Your task to perform on an android device: Add bose soundlink to the cart on target, then select checkout. Image 0: 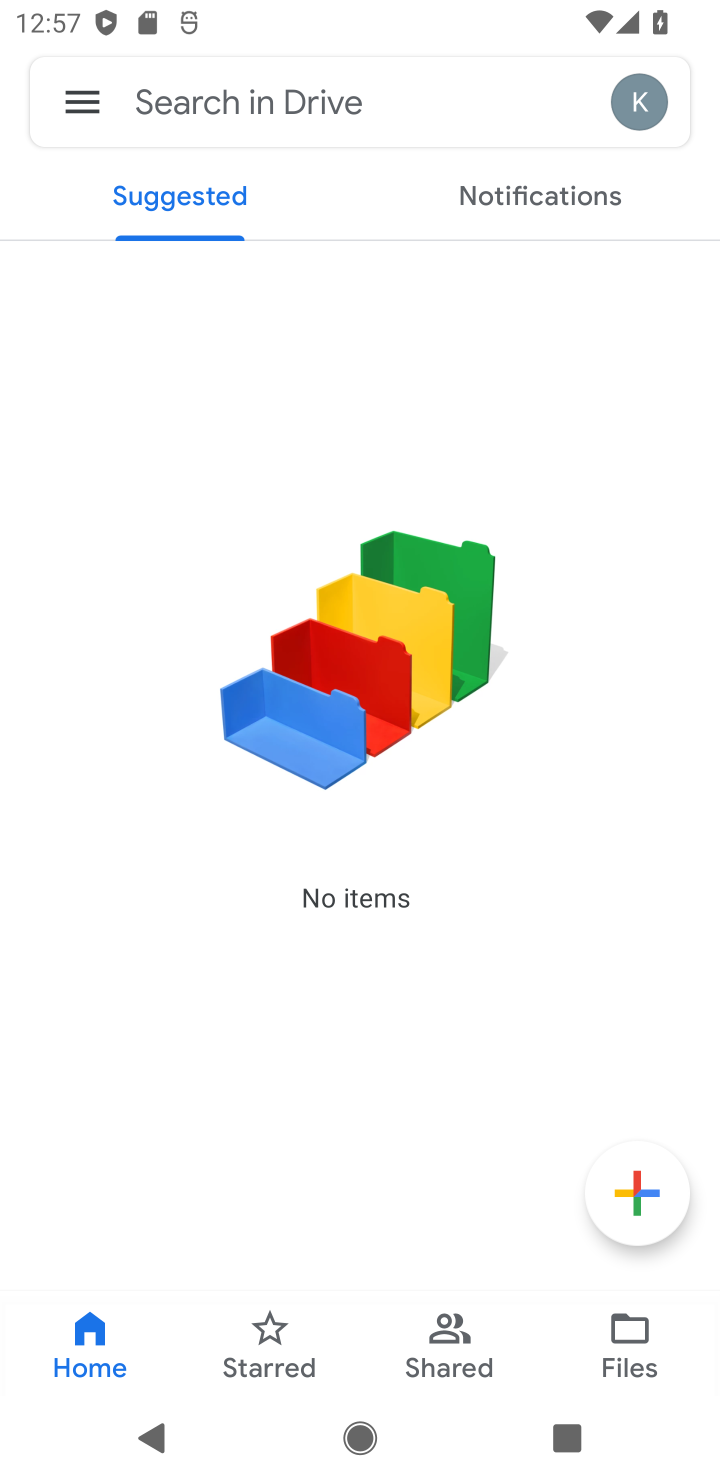
Step 0: press home button
Your task to perform on an android device: Add bose soundlink to the cart on target, then select checkout. Image 1: 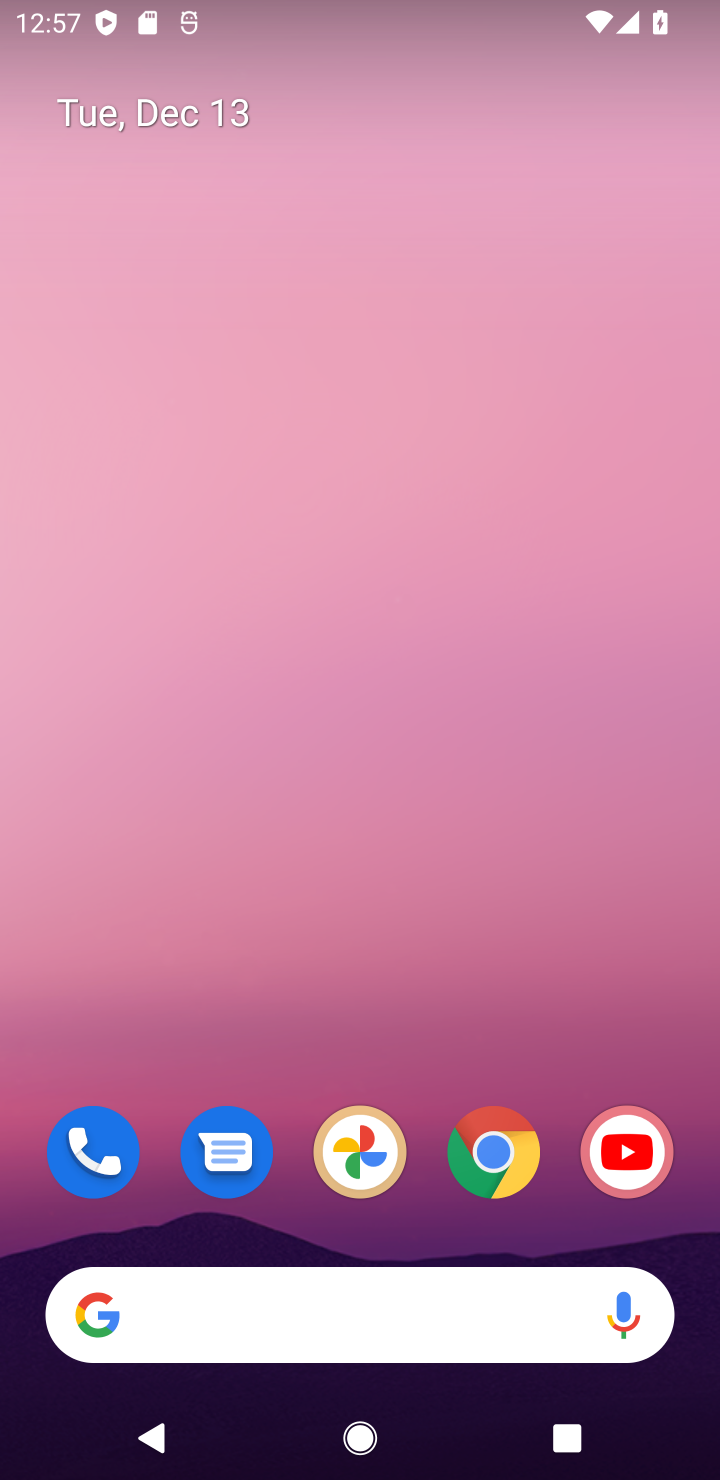
Step 1: drag from (384, 1069) to (472, 366)
Your task to perform on an android device: Add bose soundlink to the cart on target, then select checkout. Image 2: 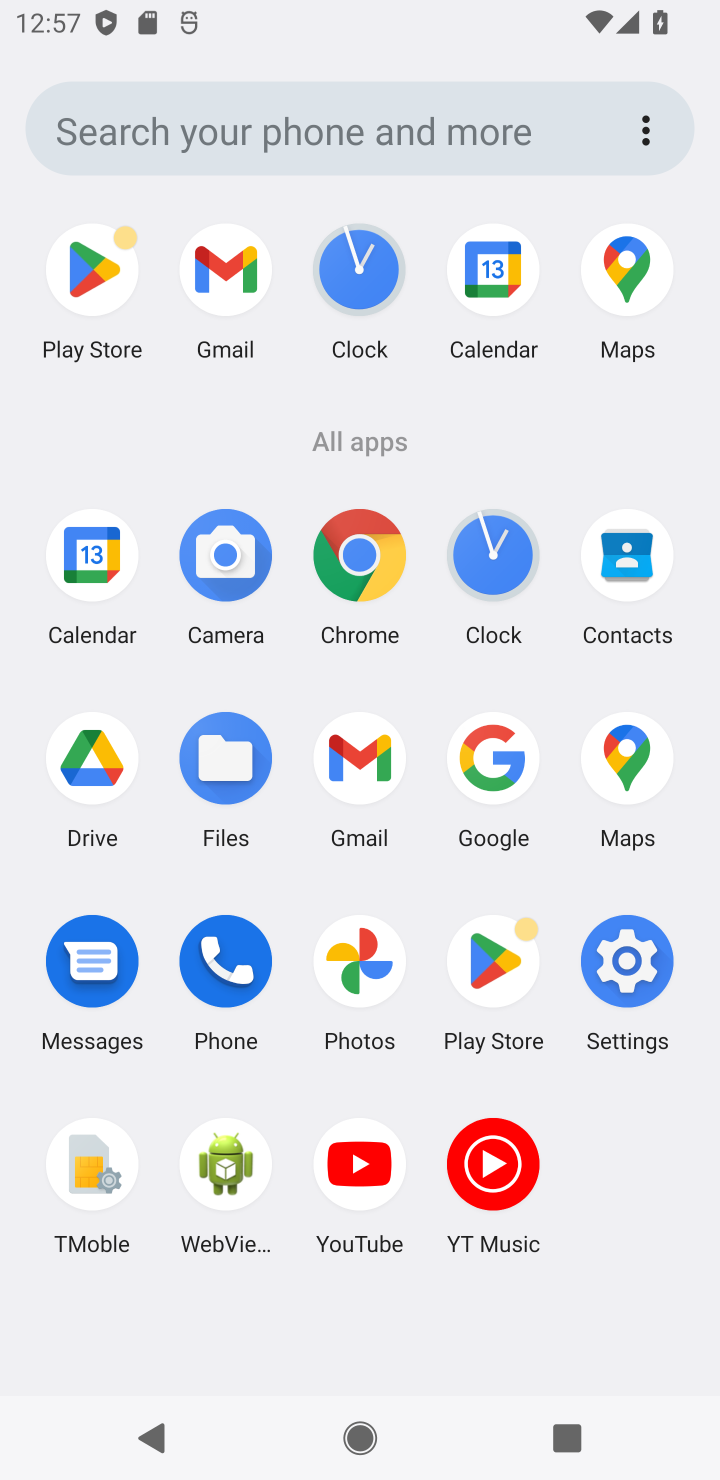
Step 2: click (482, 759)
Your task to perform on an android device: Add bose soundlink to the cart on target, then select checkout. Image 3: 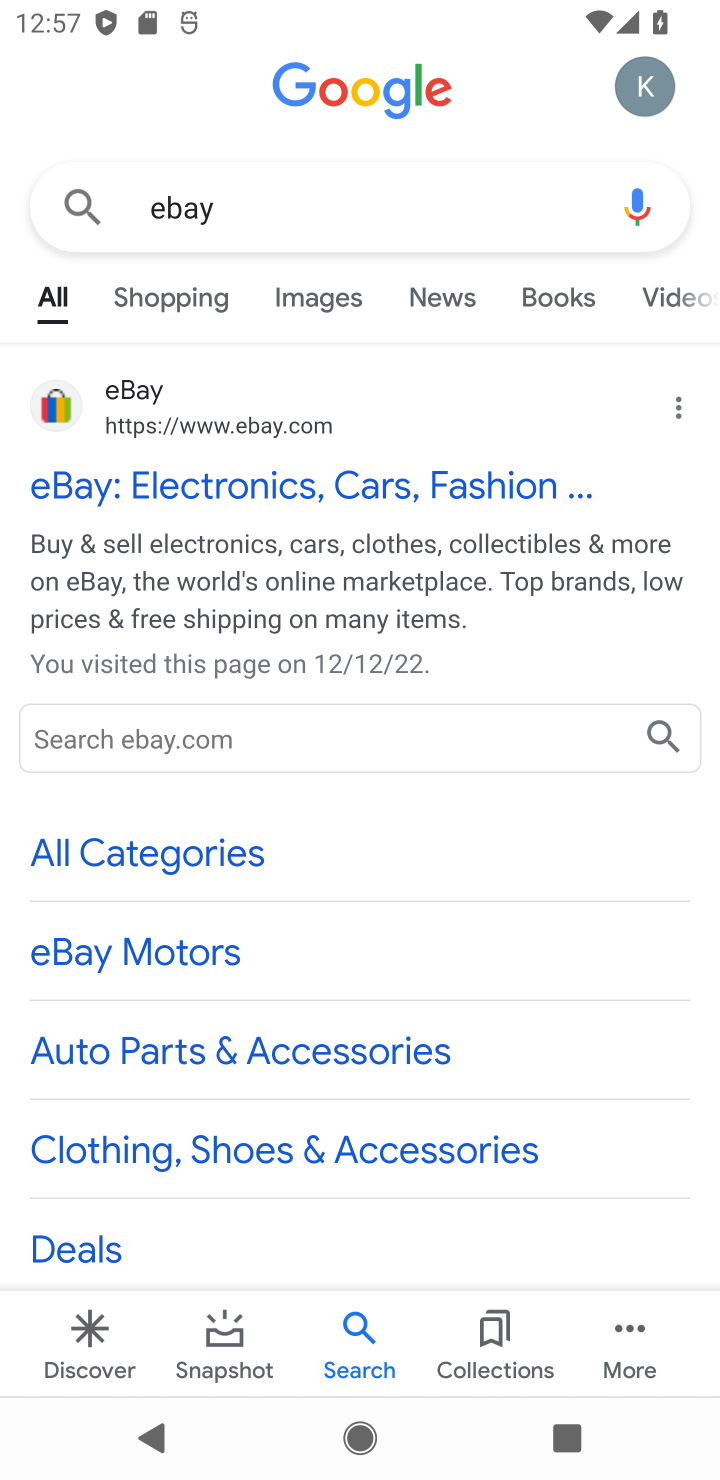
Step 3: click (178, 201)
Your task to perform on an android device: Add bose soundlink to the cart on target, then select checkout. Image 4: 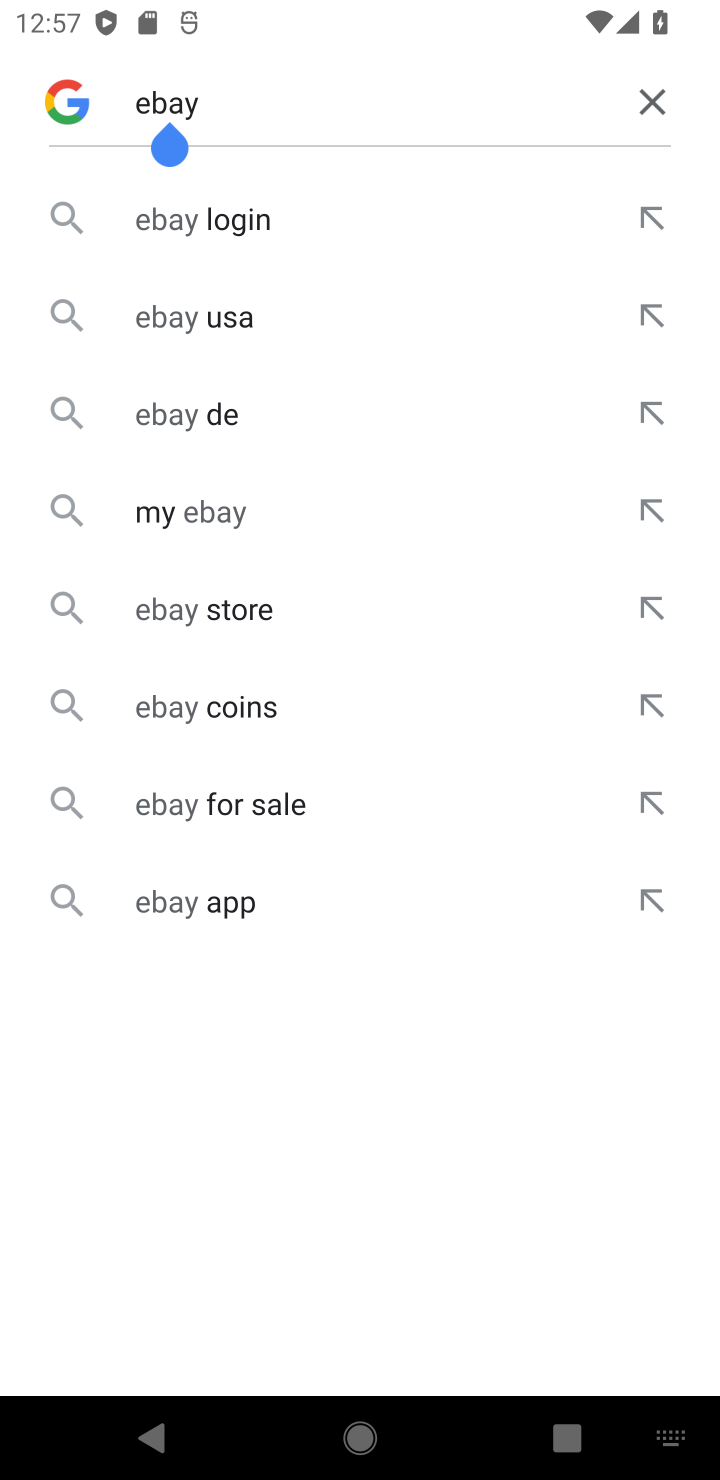
Step 4: click (667, 100)
Your task to perform on an android device: Add bose soundlink to the cart on target, then select checkout. Image 5: 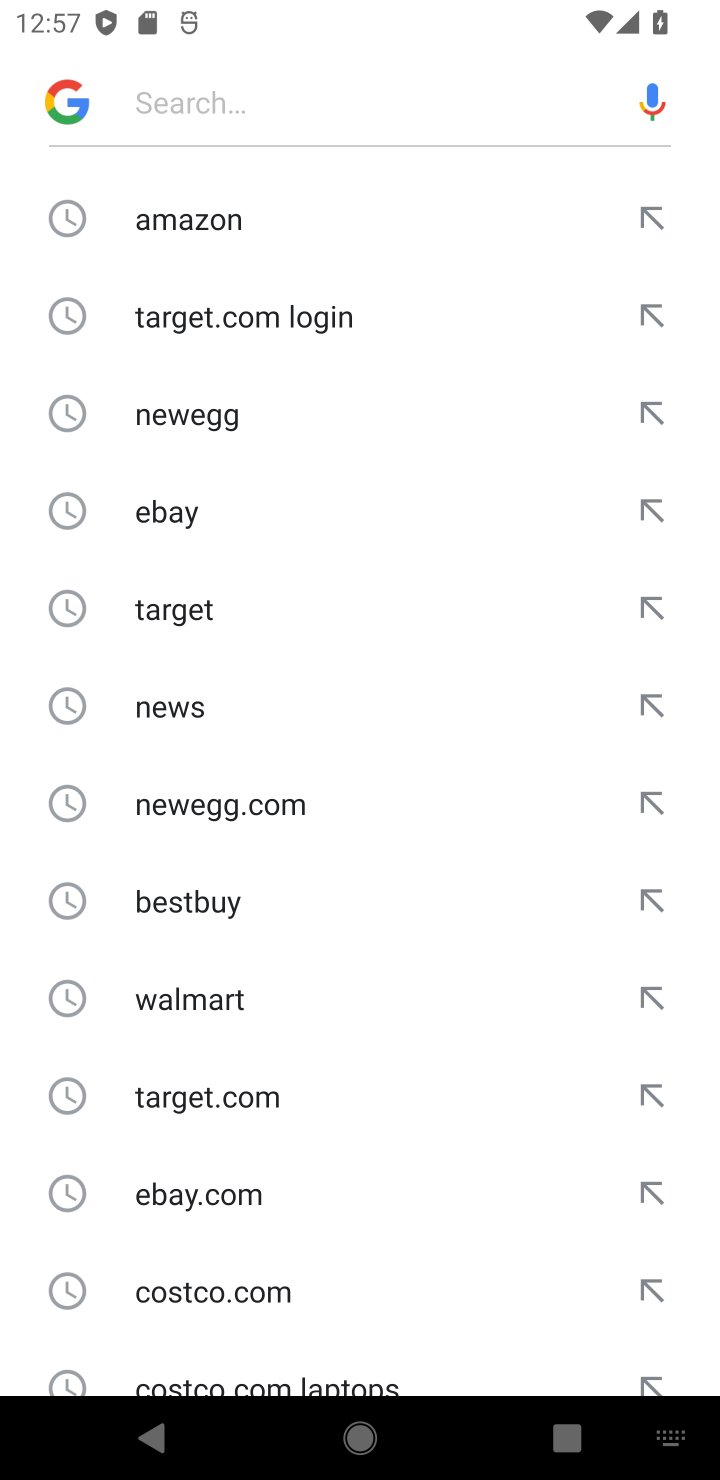
Step 5: click (172, 616)
Your task to perform on an android device: Add bose soundlink to the cart on target, then select checkout. Image 6: 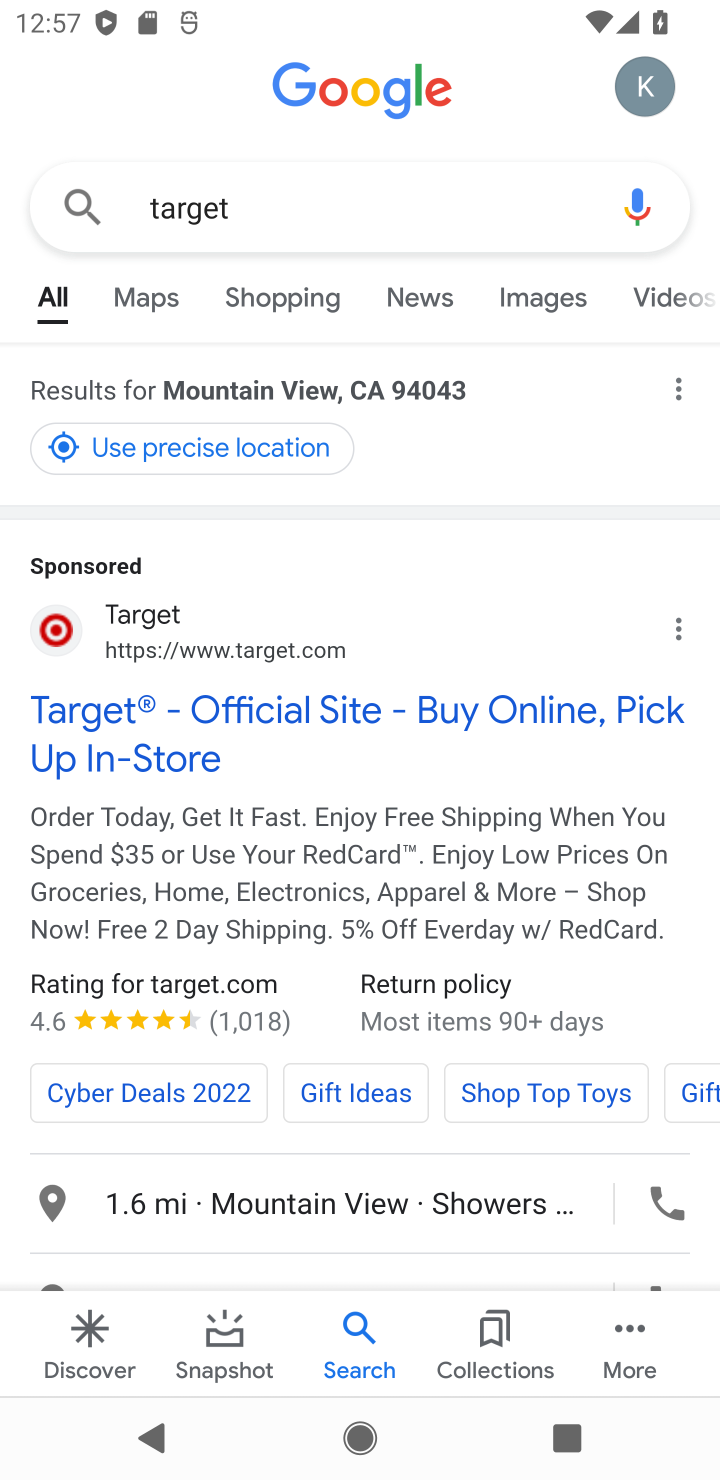
Step 6: click (182, 719)
Your task to perform on an android device: Add bose soundlink to the cart on target, then select checkout. Image 7: 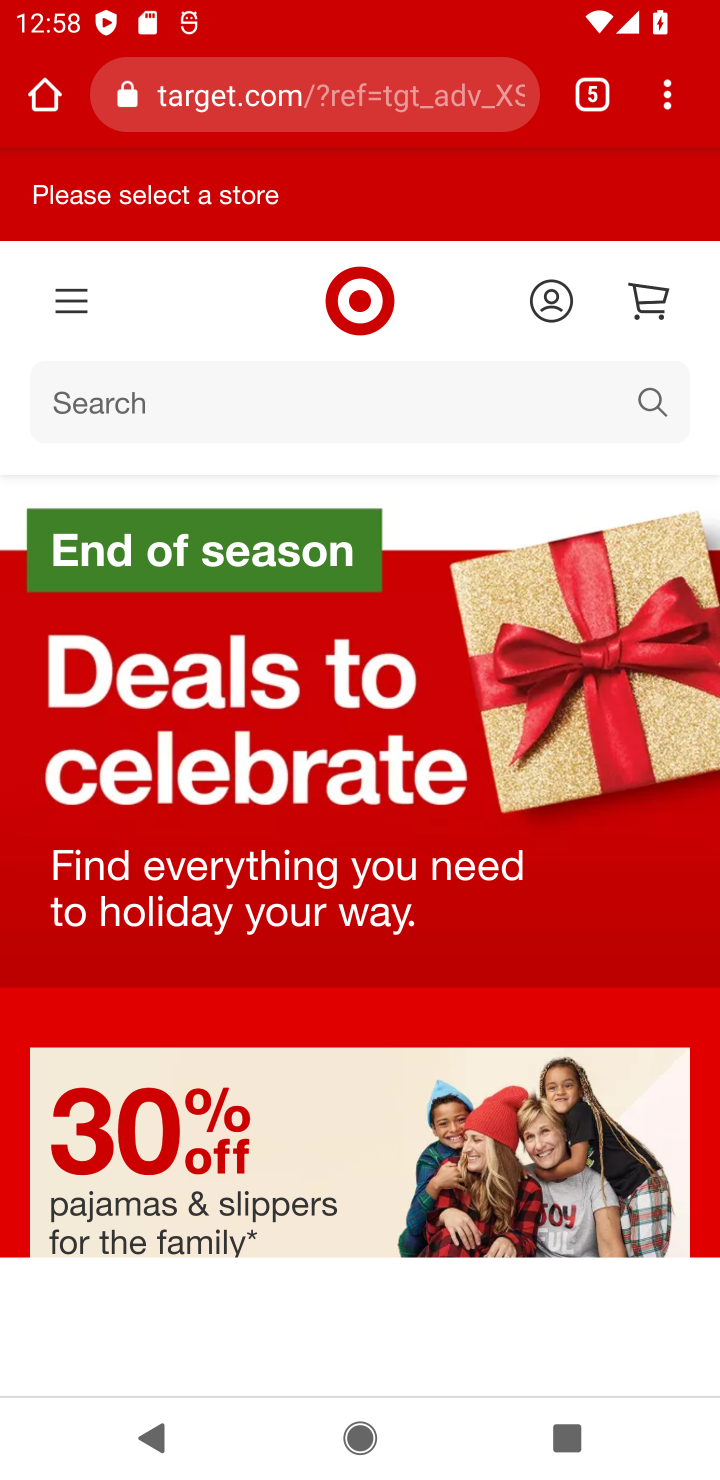
Step 7: click (216, 386)
Your task to perform on an android device: Add bose soundlink to the cart on target, then select checkout. Image 8: 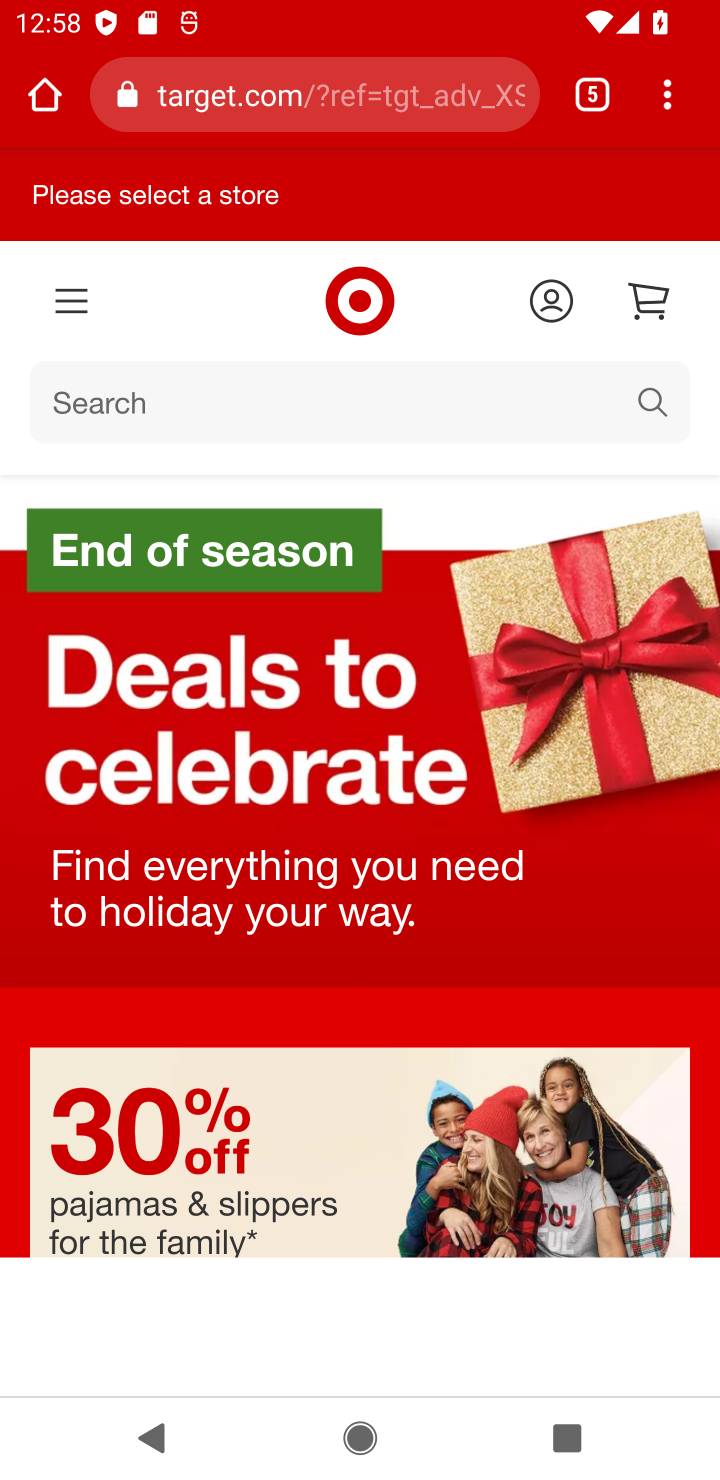
Step 8: click (115, 402)
Your task to perform on an android device: Add bose soundlink to the cart on target, then select checkout. Image 9: 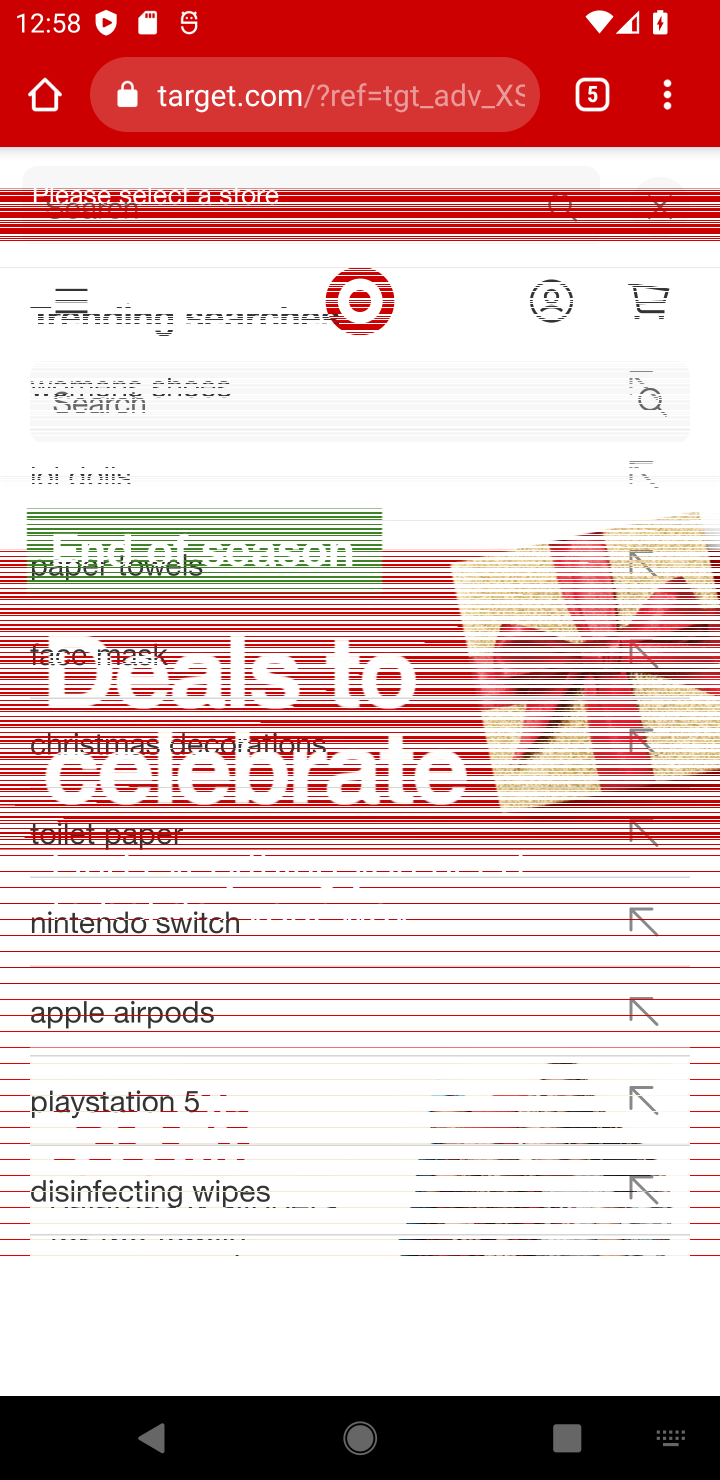
Step 9: type "bose soundlink"
Your task to perform on an android device: Add bose soundlink to the cart on target, then select checkout. Image 10: 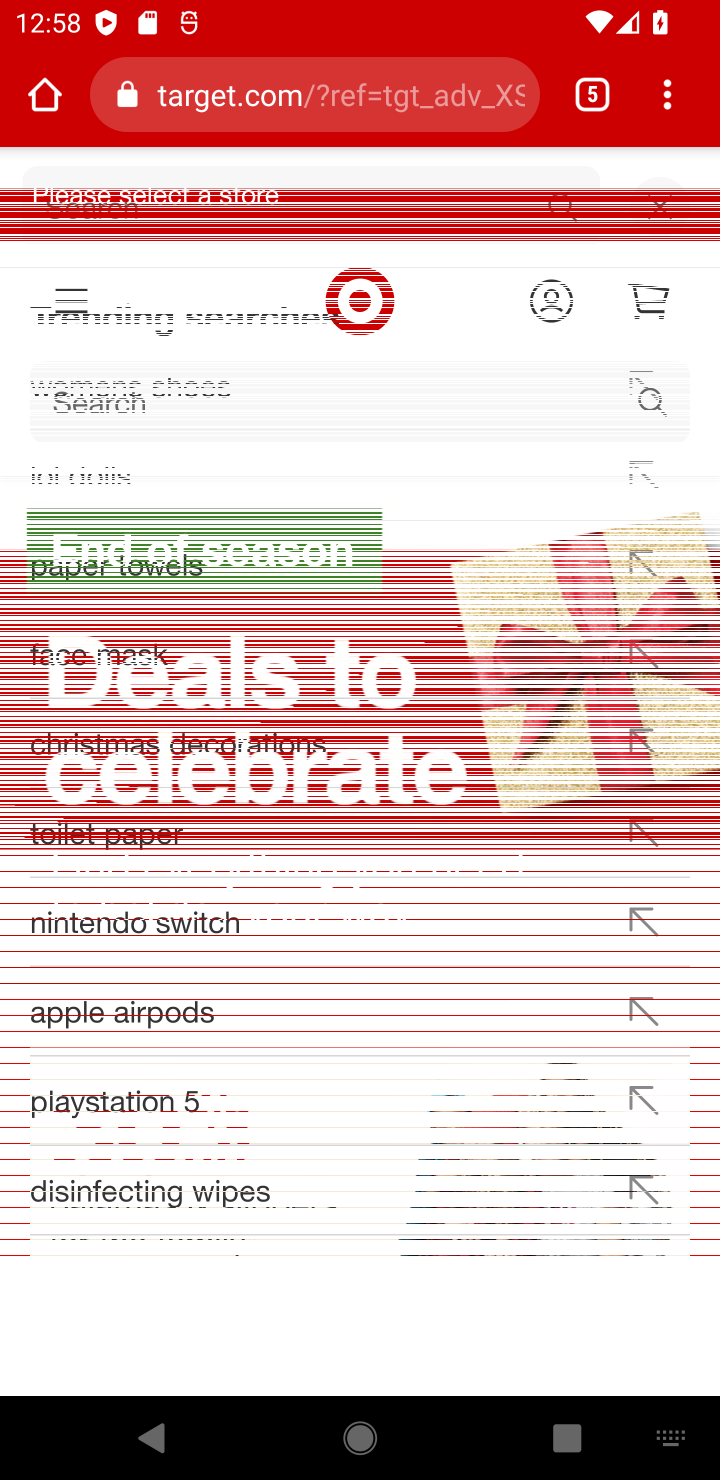
Step 10: click (546, 193)
Your task to perform on an android device: Add bose soundlink to the cart on target, then select checkout. Image 11: 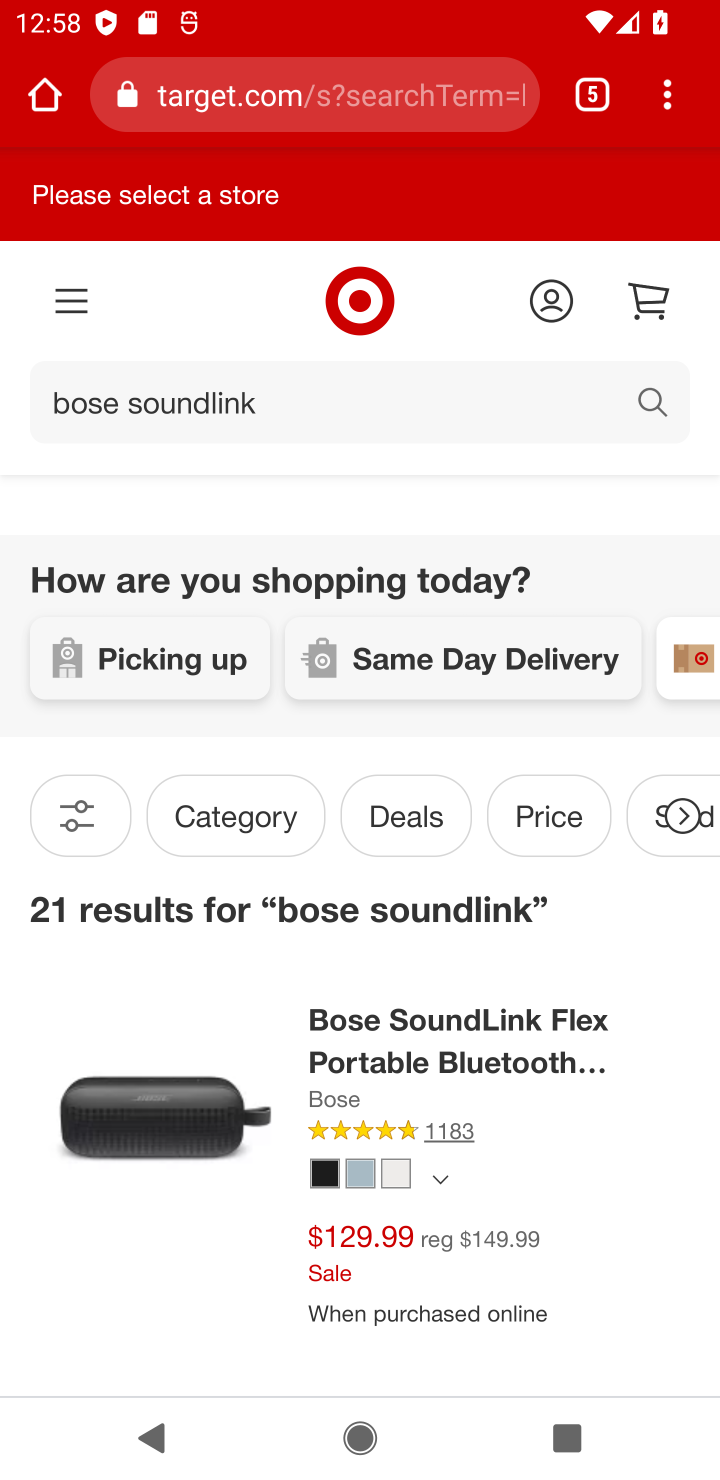
Step 11: drag from (528, 1121) to (602, 403)
Your task to perform on an android device: Add bose soundlink to the cart on target, then select checkout. Image 12: 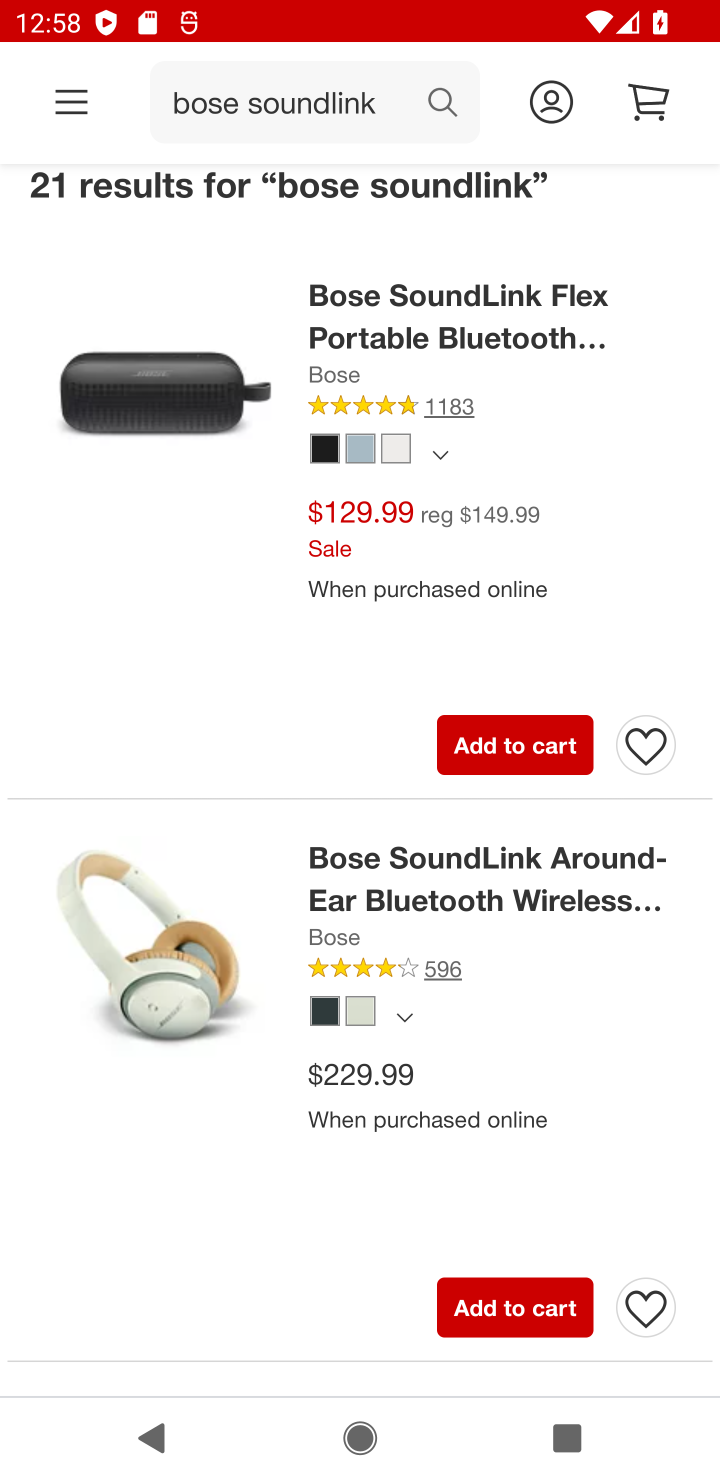
Step 12: click (518, 754)
Your task to perform on an android device: Add bose soundlink to the cart on target, then select checkout. Image 13: 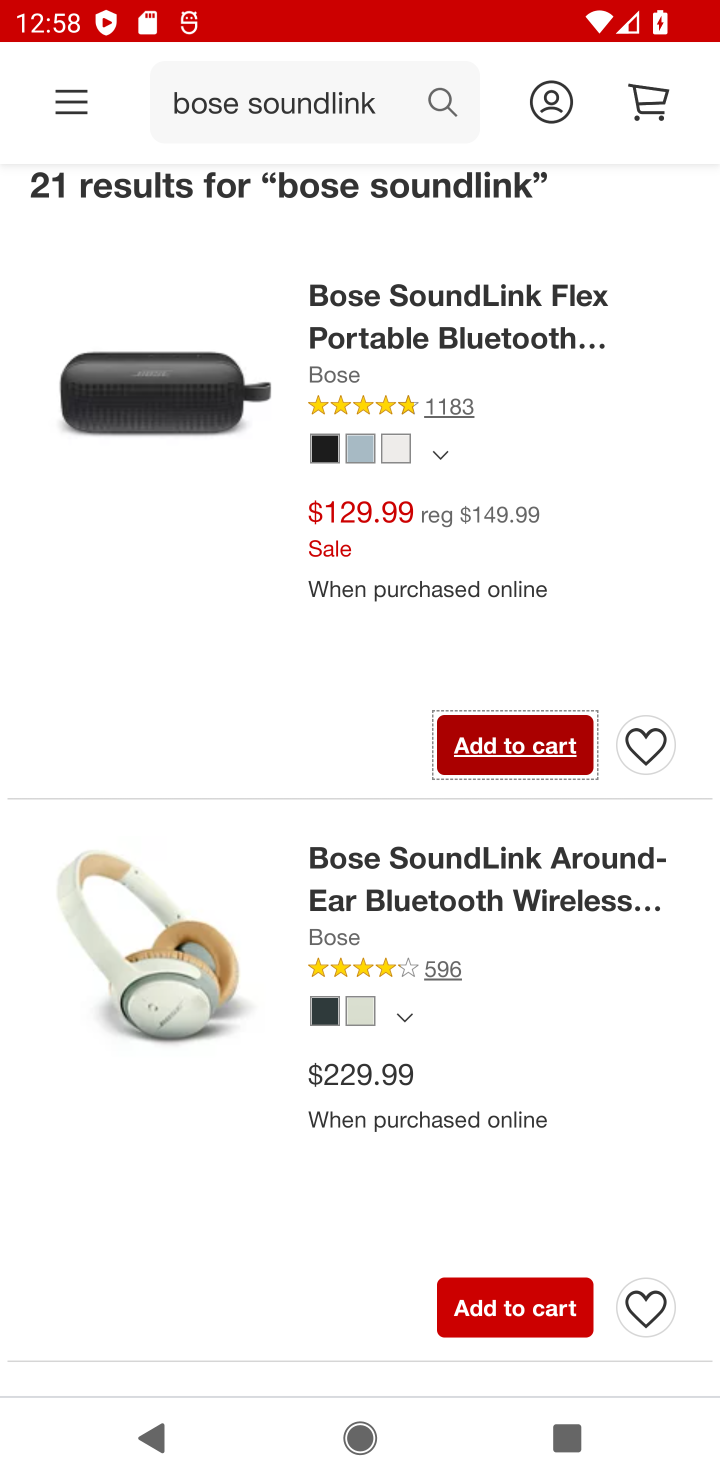
Step 13: click (518, 754)
Your task to perform on an android device: Add bose soundlink to the cart on target, then select checkout. Image 14: 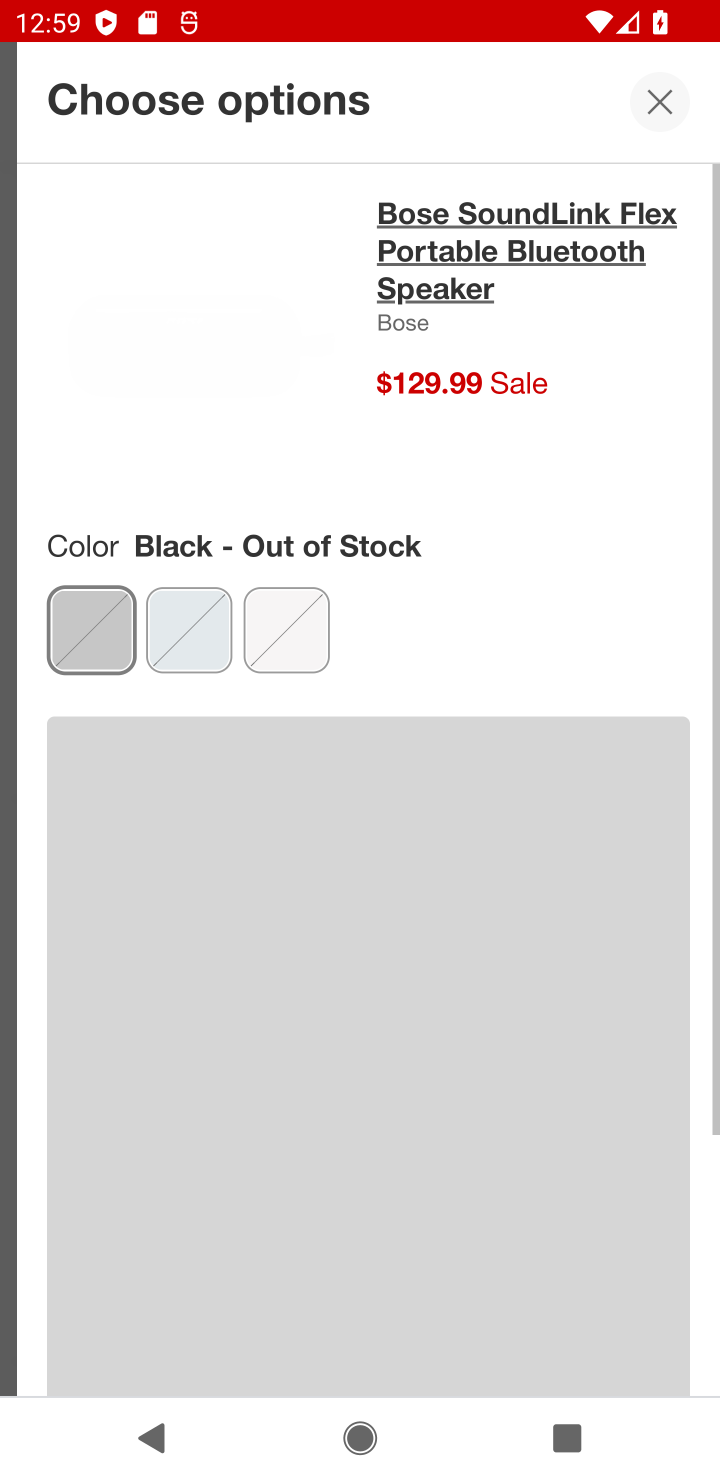
Step 14: drag from (497, 677) to (499, 228)
Your task to perform on an android device: Add bose soundlink to the cart on target, then select checkout. Image 15: 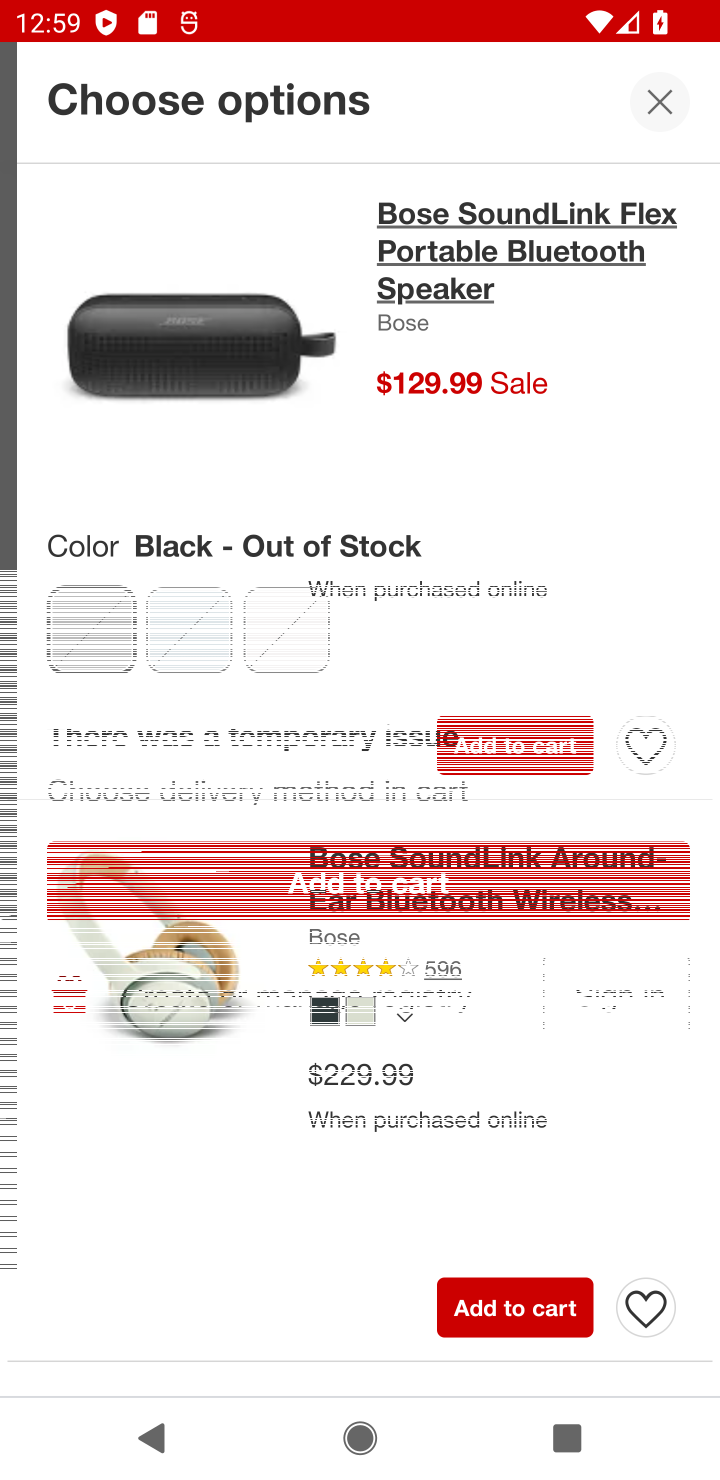
Step 15: click (503, 741)
Your task to perform on an android device: Add bose soundlink to the cart on target, then select checkout. Image 16: 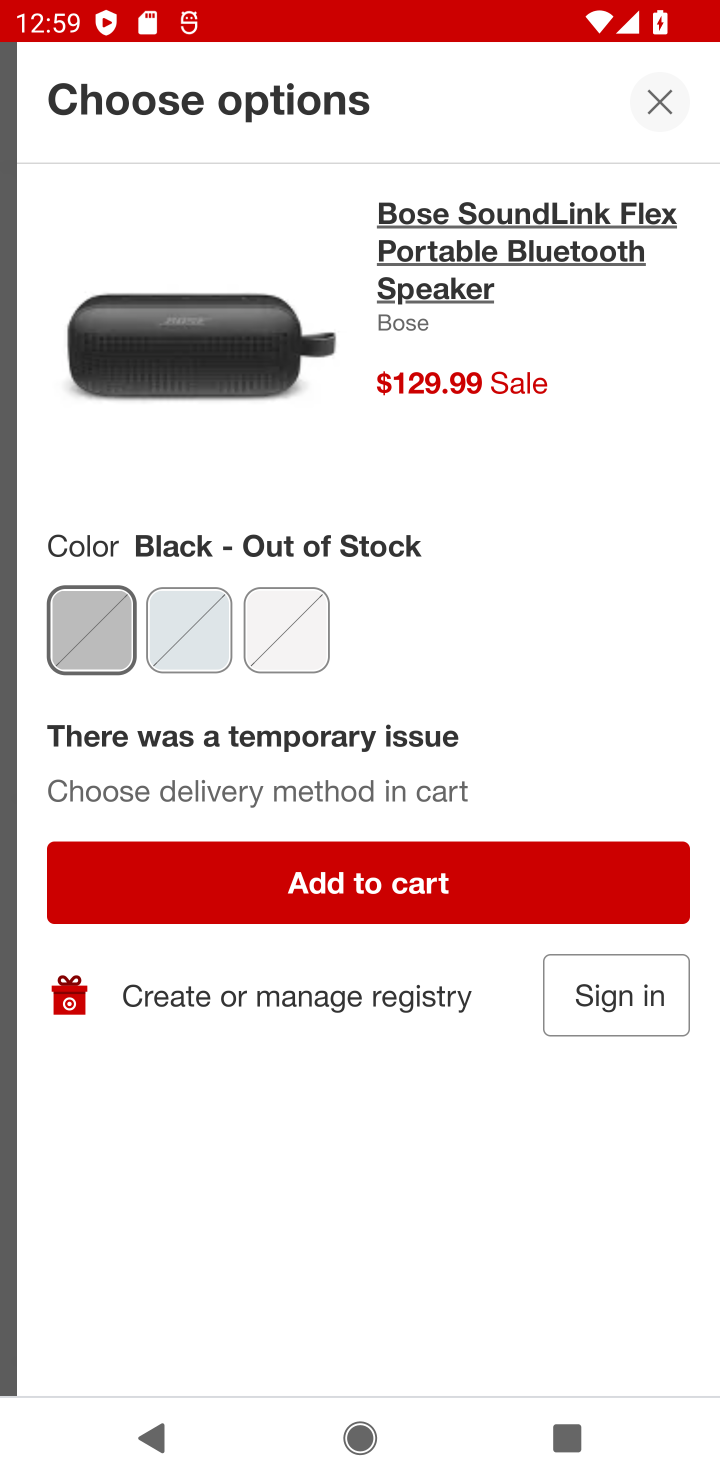
Step 16: click (387, 884)
Your task to perform on an android device: Add bose soundlink to the cart on target, then select checkout. Image 17: 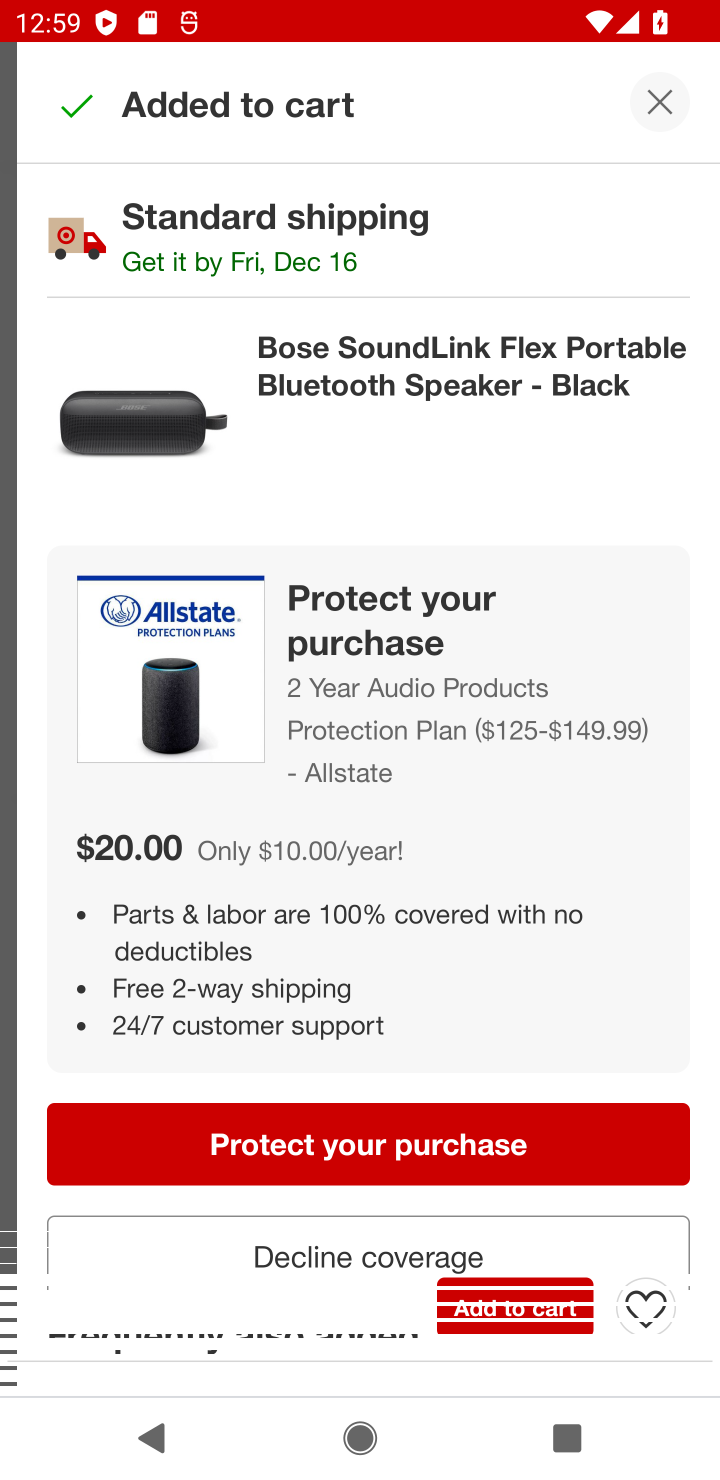
Step 17: click (666, 94)
Your task to perform on an android device: Add bose soundlink to the cart on target, then select checkout. Image 18: 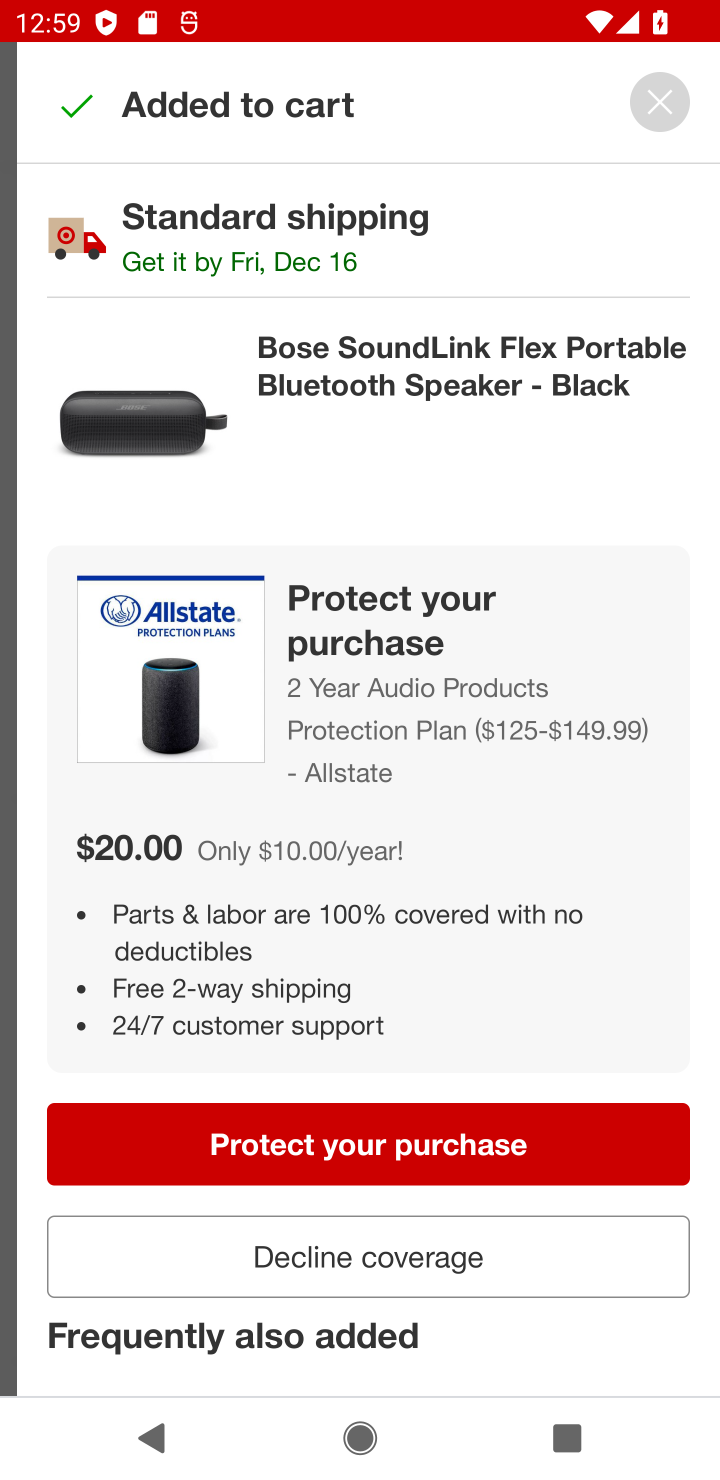
Step 18: click (658, 115)
Your task to perform on an android device: Add bose soundlink to the cart on target, then select checkout. Image 19: 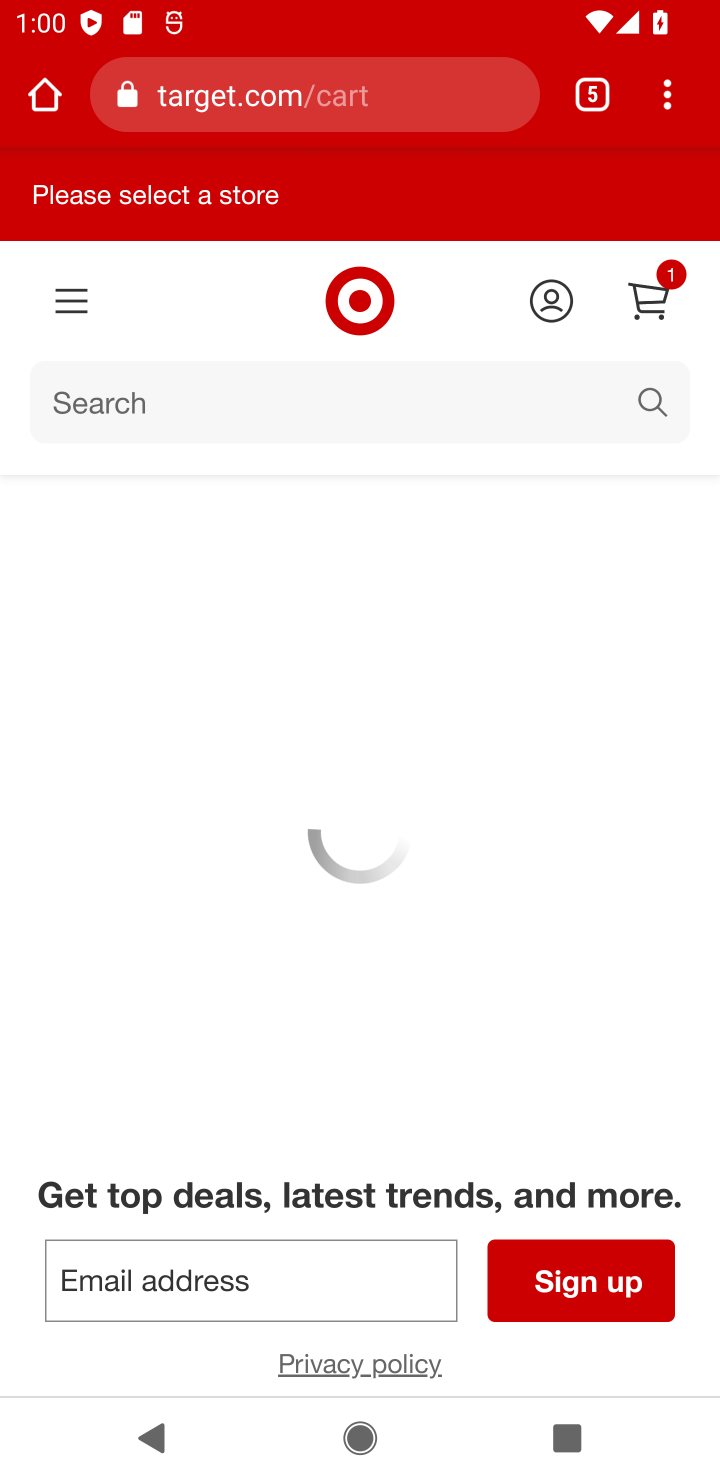
Step 19: click (664, 299)
Your task to perform on an android device: Add bose soundlink to the cart on target, then select checkout. Image 20: 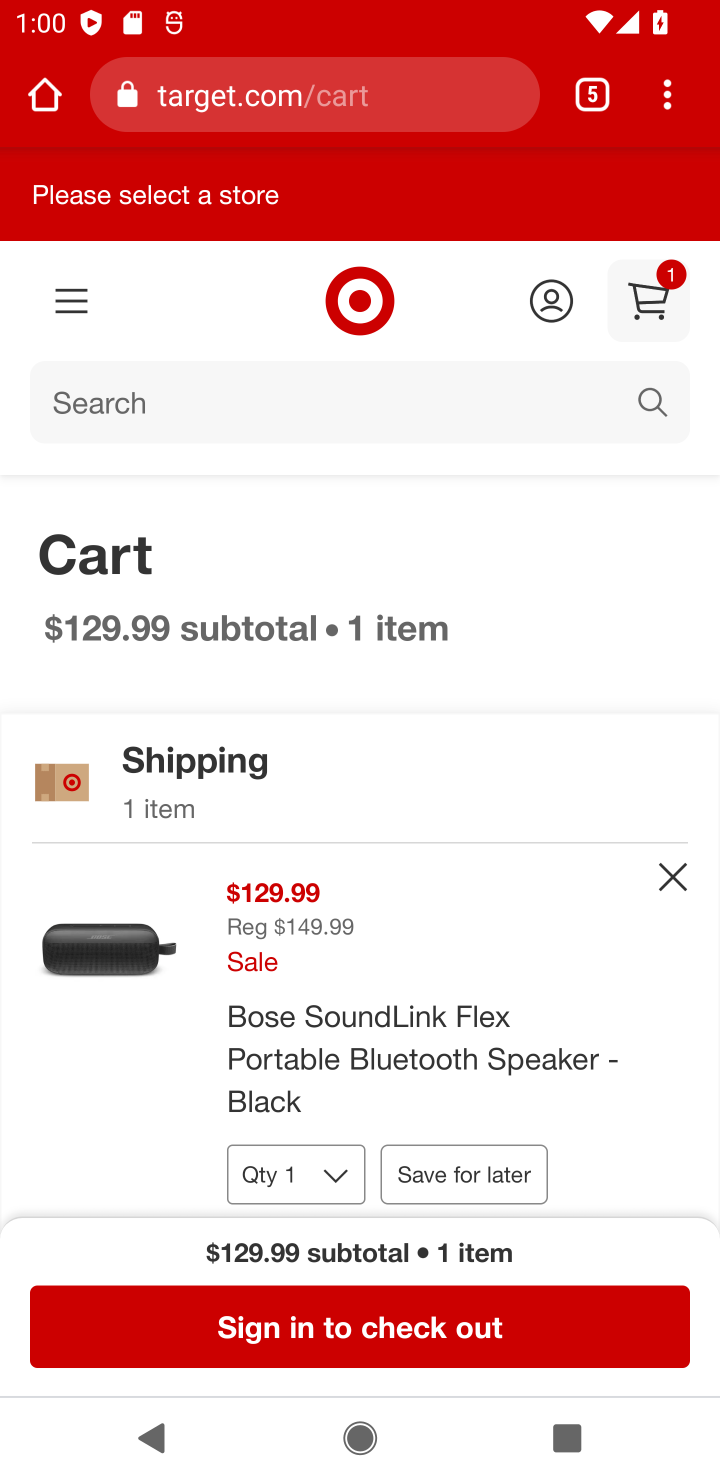
Step 20: click (351, 1323)
Your task to perform on an android device: Add bose soundlink to the cart on target, then select checkout. Image 21: 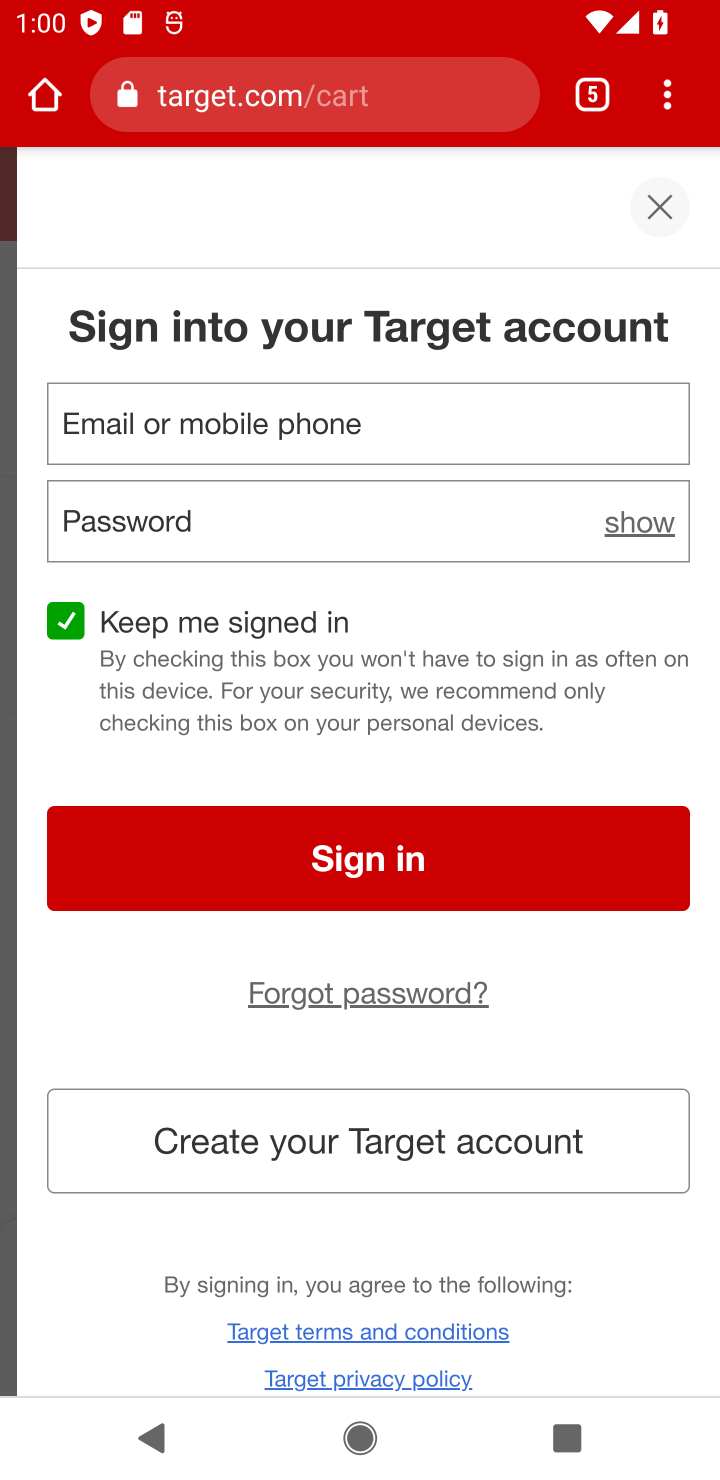
Step 21: task complete